Your task to perform on an android device: check storage Image 0: 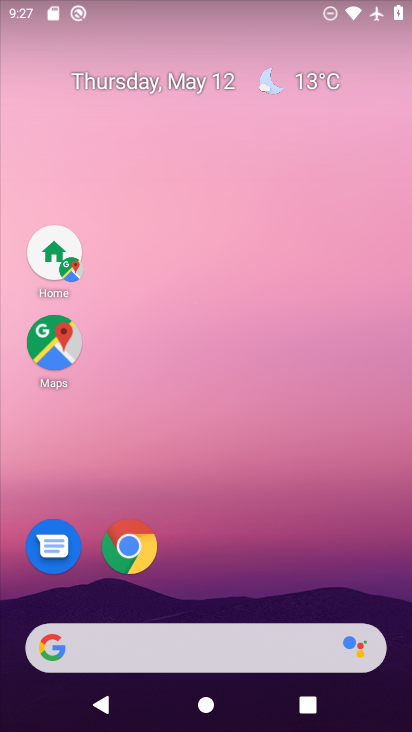
Step 0: drag from (174, 641) to (363, 28)
Your task to perform on an android device: check storage Image 1: 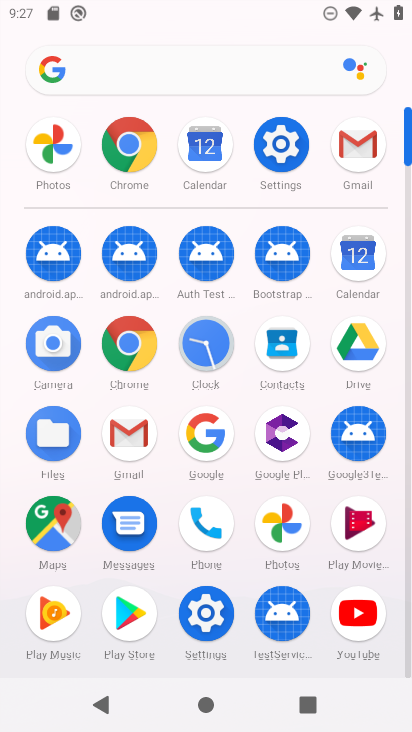
Step 1: click (276, 151)
Your task to perform on an android device: check storage Image 2: 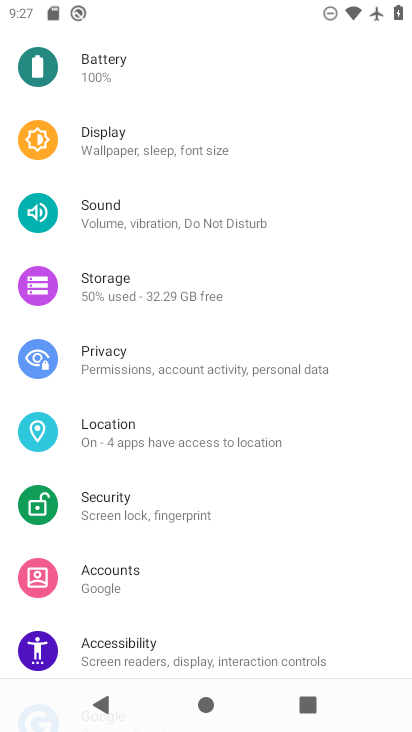
Step 2: click (123, 292)
Your task to perform on an android device: check storage Image 3: 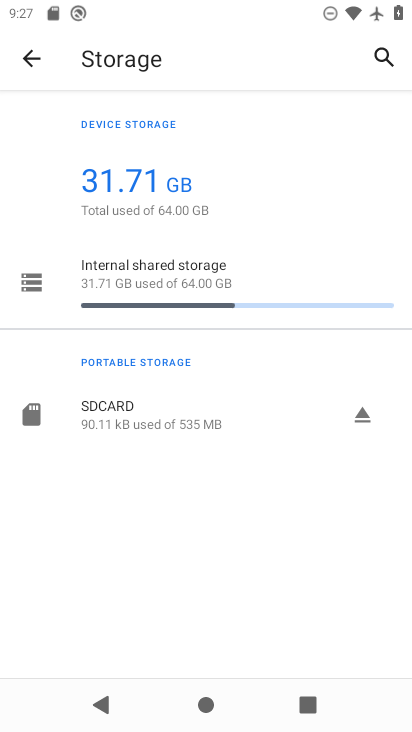
Step 3: task complete